Your task to perform on an android device: make emails show in primary in the gmail app Image 0: 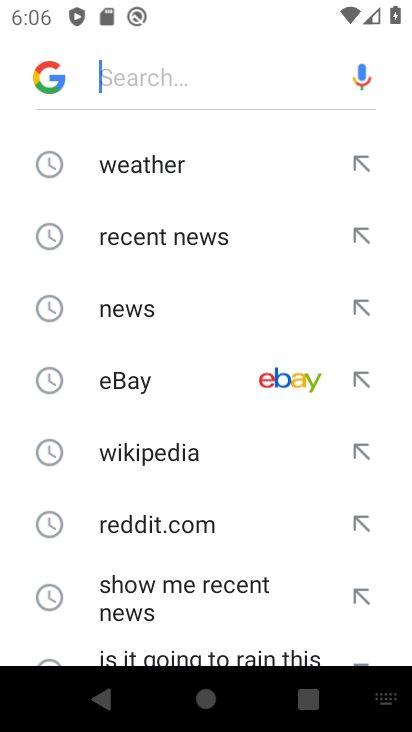
Step 0: press home button
Your task to perform on an android device: make emails show in primary in the gmail app Image 1: 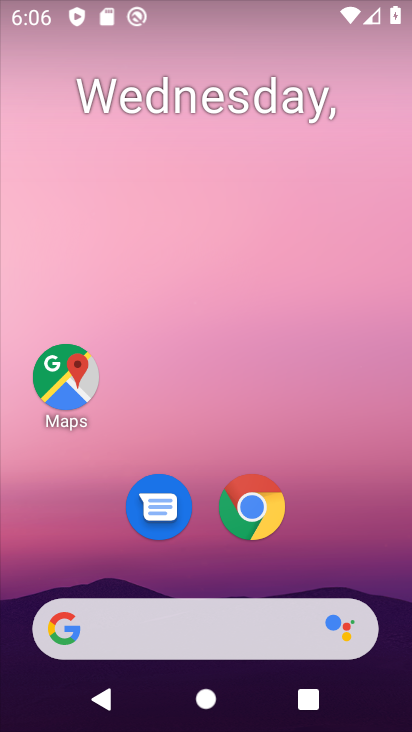
Step 1: drag from (287, 643) to (280, 105)
Your task to perform on an android device: make emails show in primary in the gmail app Image 2: 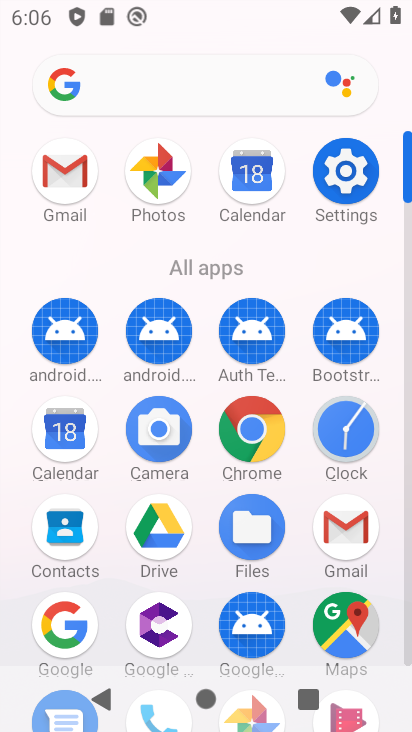
Step 2: click (349, 542)
Your task to perform on an android device: make emails show in primary in the gmail app Image 3: 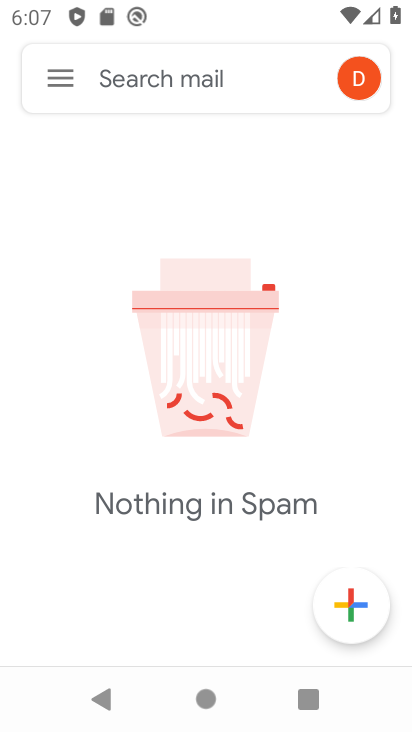
Step 3: click (63, 75)
Your task to perform on an android device: make emails show in primary in the gmail app Image 4: 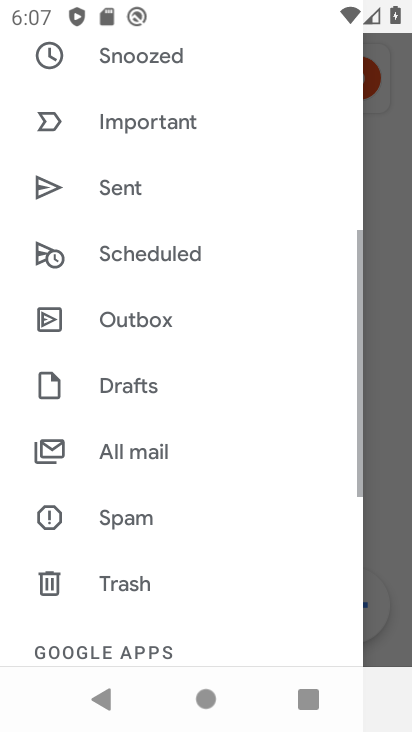
Step 4: drag from (131, 640) to (129, 102)
Your task to perform on an android device: make emails show in primary in the gmail app Image 5: 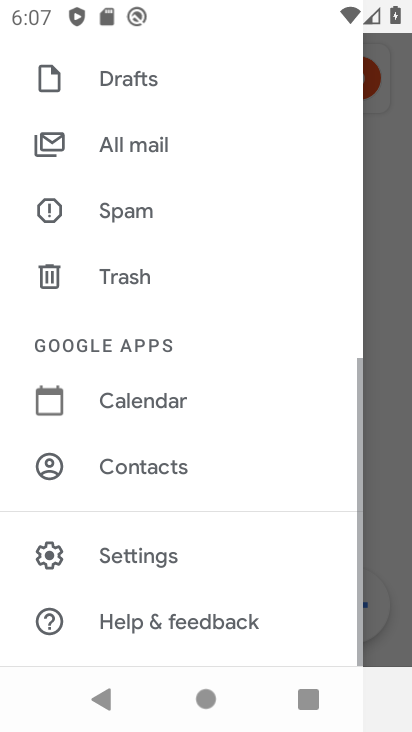
Step 5: click (176, 549)
Your task to perform on an android device: make emails show in primary in the gmail app Image 6: 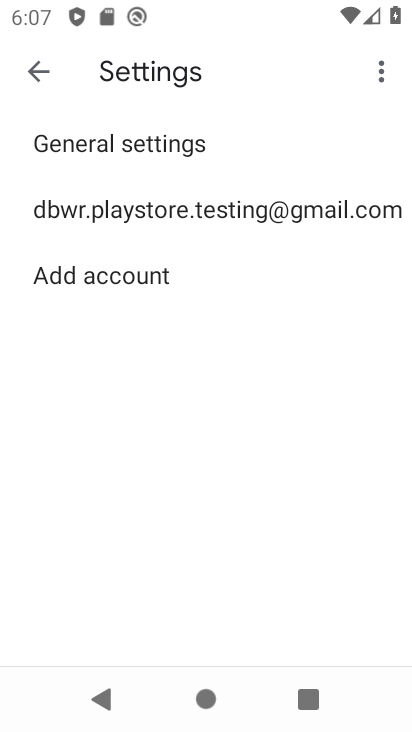
Step 6: click (139, 210)
Your task to perform on an android device: make emails show in primary in the gmail app Image 7: 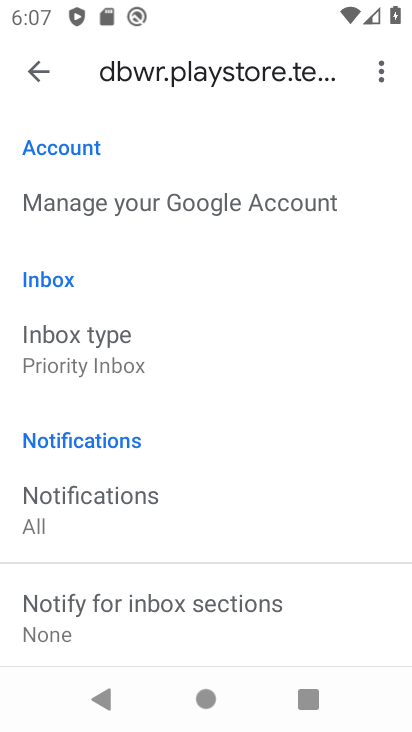
Step 7: click (108, 360)
Your task to perform on an android device: make emails show in primary in the gmail app Image 8: 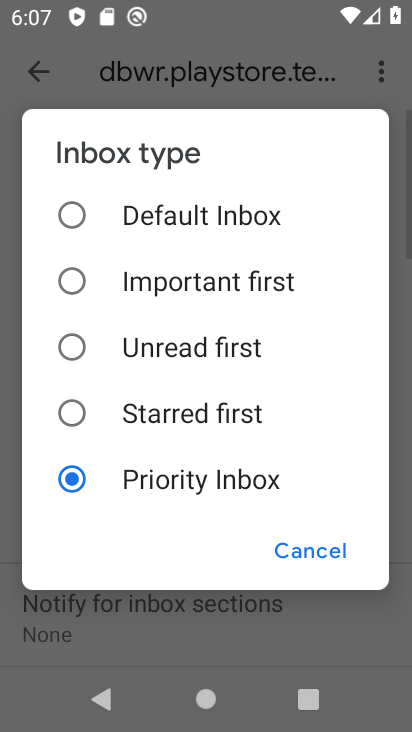
Step 8: click (73, 209)
Your task to perform on an android device: make emails show in primary in the gmail app Image 9: 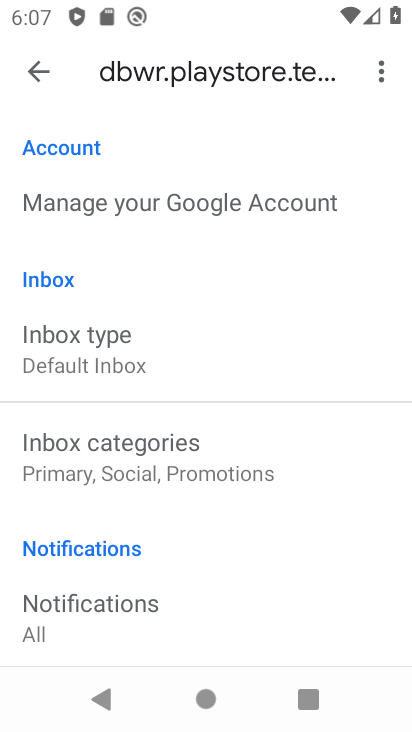
Step 9: press back button
Your task to perform on an android device: make emails show in primary in the gmail app Image 10: 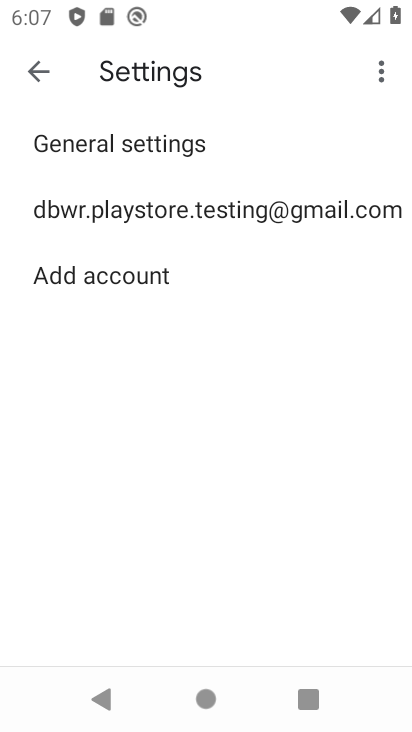
Step 10: press back button
Your task to perform on an android device: make emails show in primary in the gmail app Image 11: 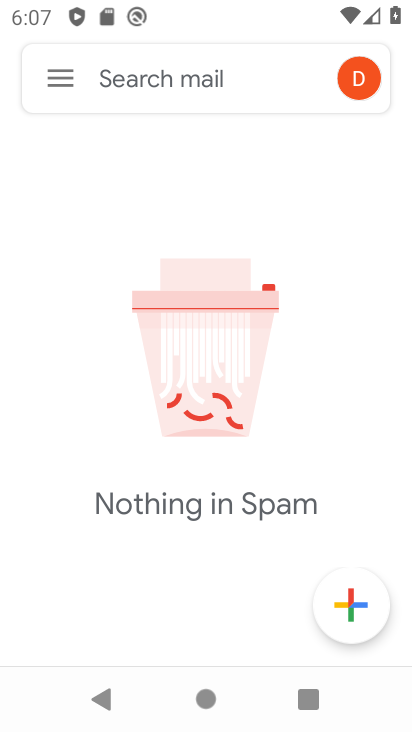
Step 11: click (64, 66)
Your task to perform on an android device: make emails show in primary in the gmail app Image 12: 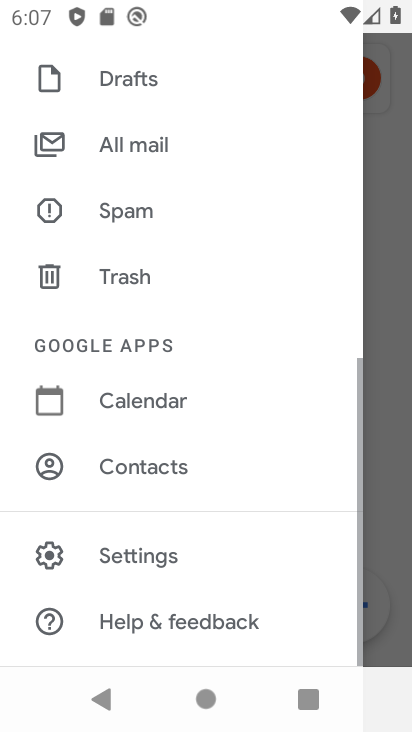
Step 12: drag from (151, 168) to (135, 725)
Your task to perform on an android device: make emails show in primary in the gmail app Image 13: 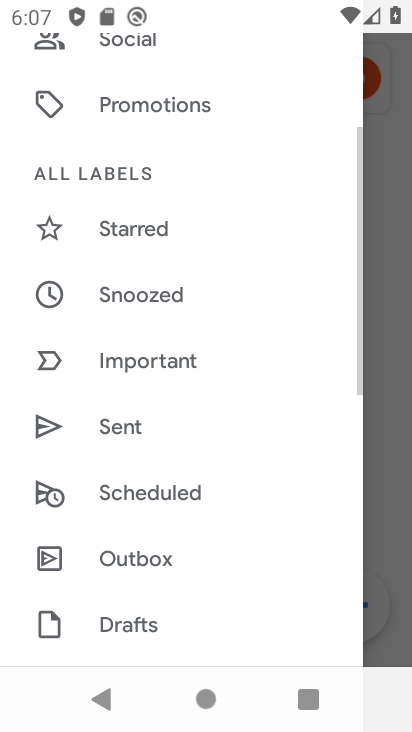
Step 13: drag from (176, 190) to (168, 689)
Your task to perform on an android device: make emails show in primary in the gmail app Image 14: 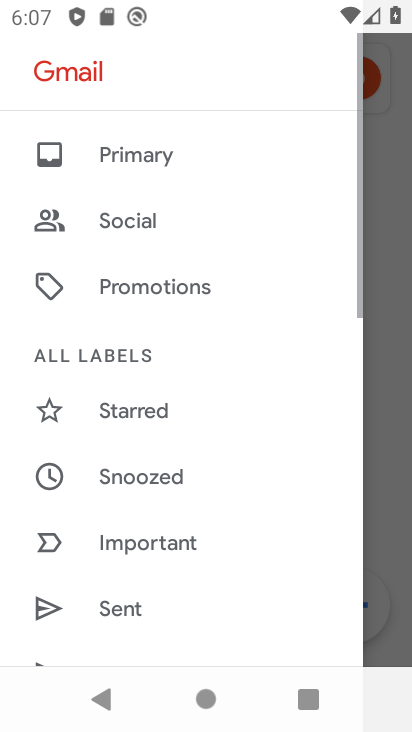
Step 14: click (156, 154)
Your task to perform on an android device: make emails show in primary in the gmail app Image 15: 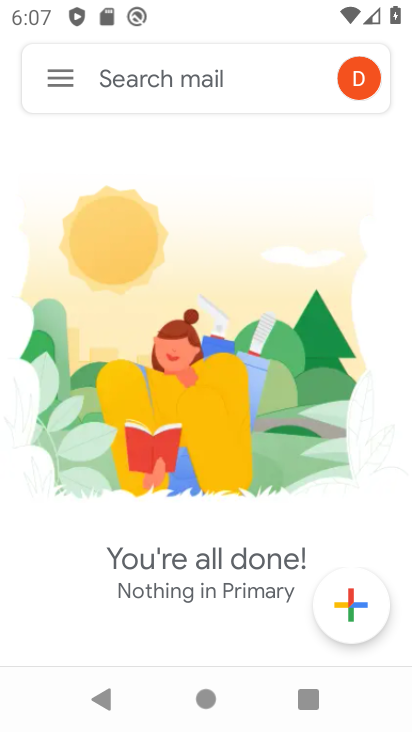
Step 15: task complete